Your task to perform on an android device: turn off improve location accuracy Image 0: 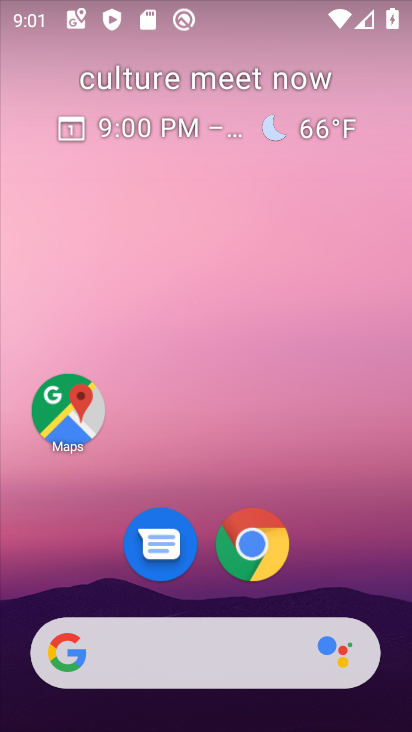
Step 0: drag from (160, 324) to (154, 282)
Your task to perform on an android device: turn off improve location accuracy Image 1: 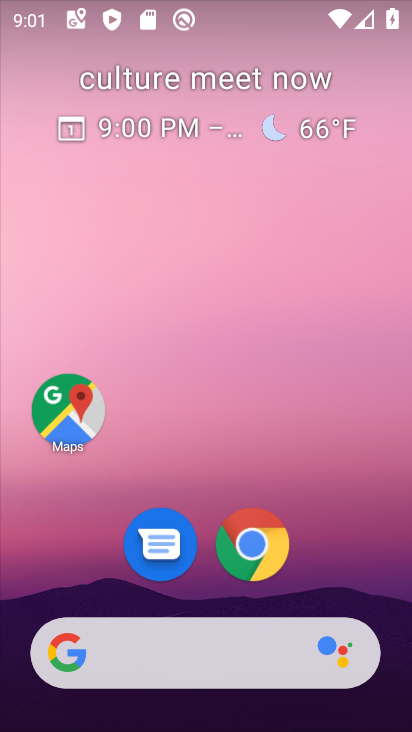
Step 1: drag from (215, 560) to (276, 244)
Your task to perform on an android device: turn off improve location accuracy Image 2: 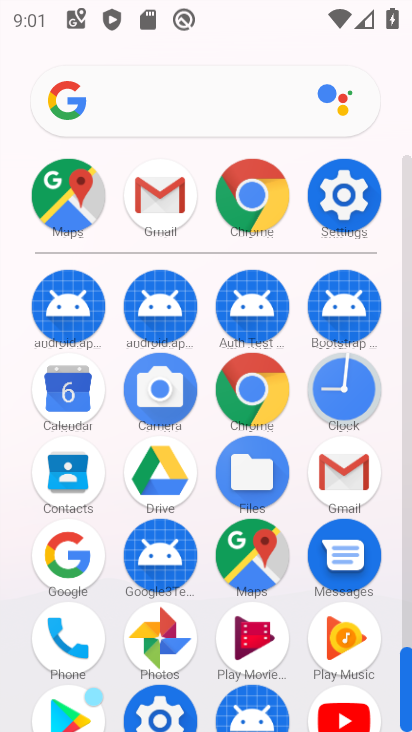
Step 2: click (351, 203)
Your task to perform on an android device: turn off improve location accuracy Image 3: 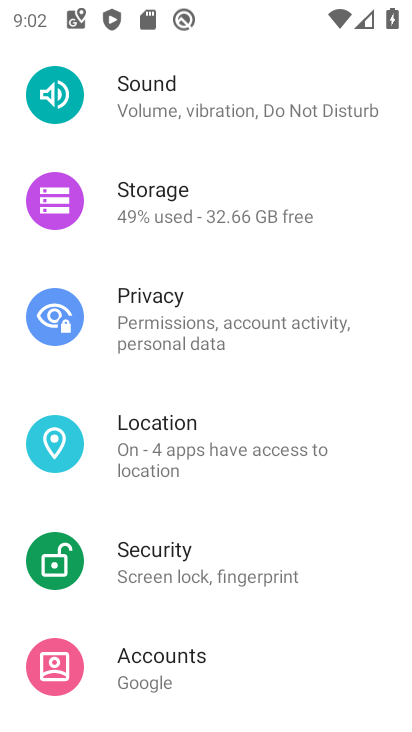
Step 3: click (313, 444)
Your task to perform on an android device: turn off improve location accuracy Image 4: 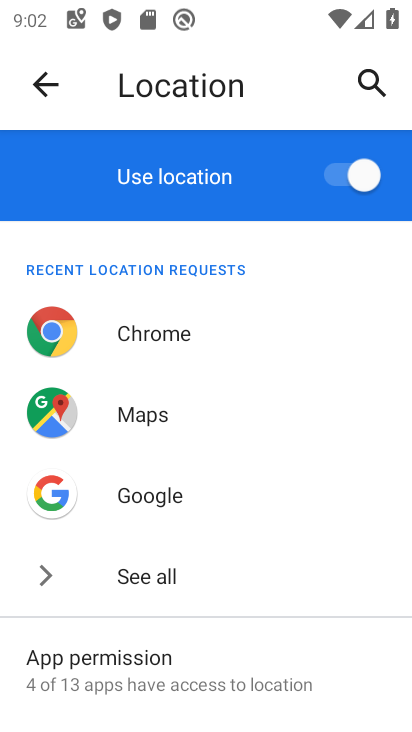
Step 4: drag from (198, 637) to (211, 271)
Your task to perform on an android device: turn off improve location accuracy Image 5: 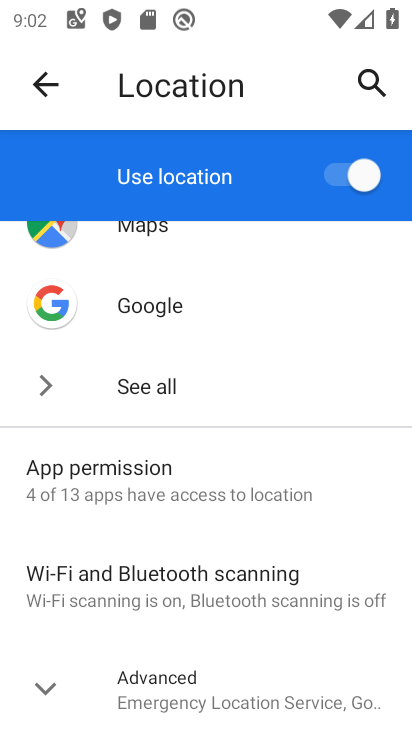
Step 5: drag from (184, 638) to (235, 293)
Your task to perform on an android device: turn off improve location accuracy Image 6: 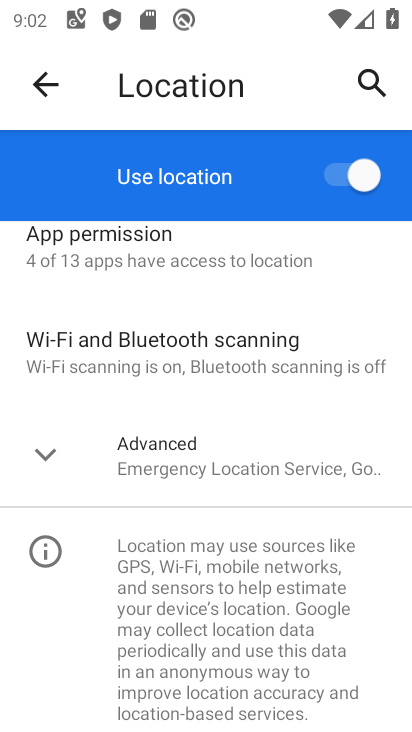
Step 6: click (62, 455)
Your task to perform on an android device: turn off improve location accuracy Image 7: 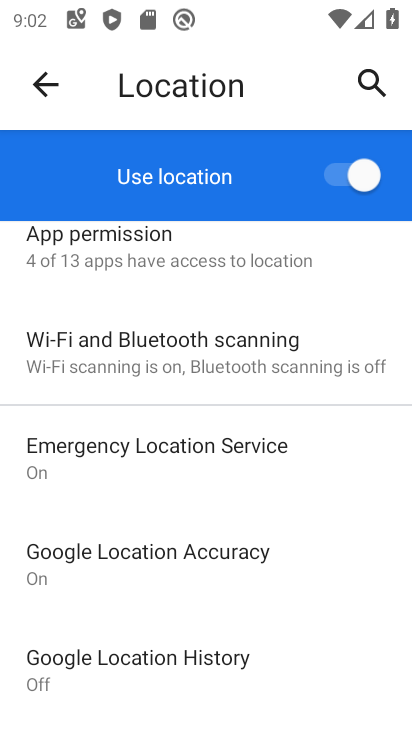
Step 7: click (121, 560)
Your task to perform on an android device: turn off improve location accuracy Image 8: 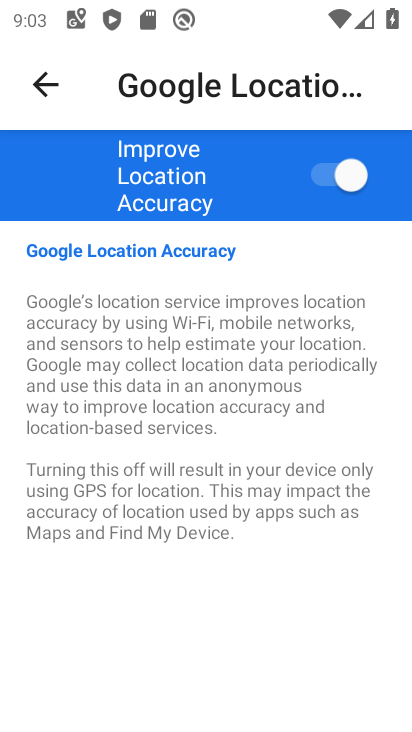
Step 8: click (327, 170)
Your task to perform on an android device: turn off improve location accuracy Image 9: 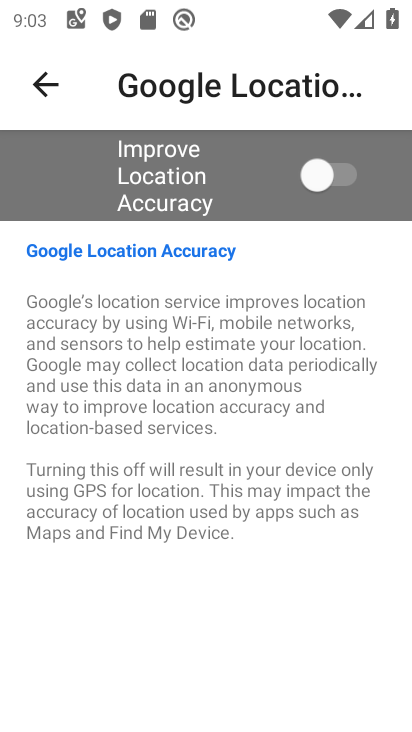
Step 9: task complete